Your task to perform on an android device: Open the Play Movies app and select the watchlist tab. Image 0: 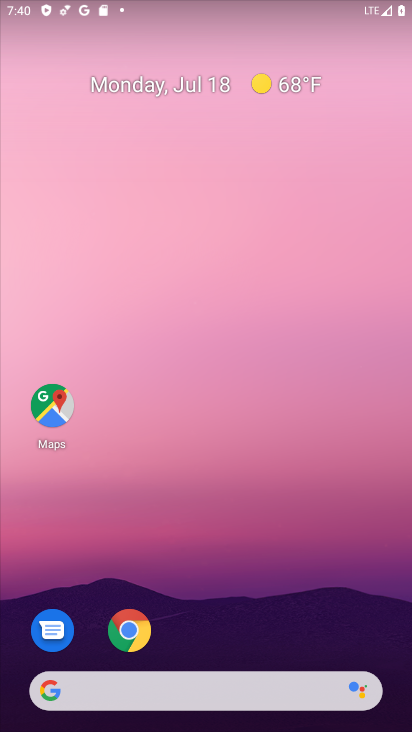
Step 0: drag from (220, 700) to (298, 96)
Your task to perform on an android device: Open the Play Movies app and select the watchlist tab. Image 1: 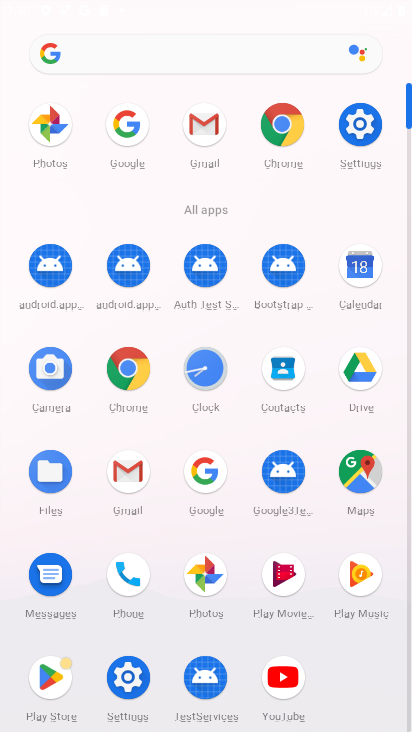
Step 1: drag from (192, 590) to (192, 397)
Your task to perform on an android device: Open the Play Movies app and select the watchlist tab. Image 2: 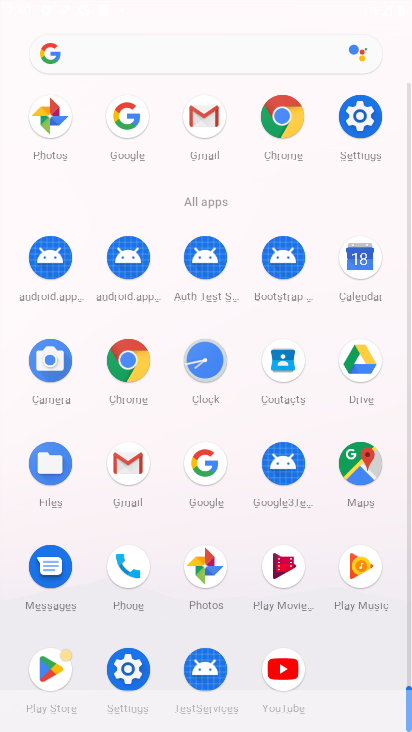
Step 2: click (298, 584)
Your task to perform on an android device: Open the Play Movies app and select the watchlist tab. Image 3: 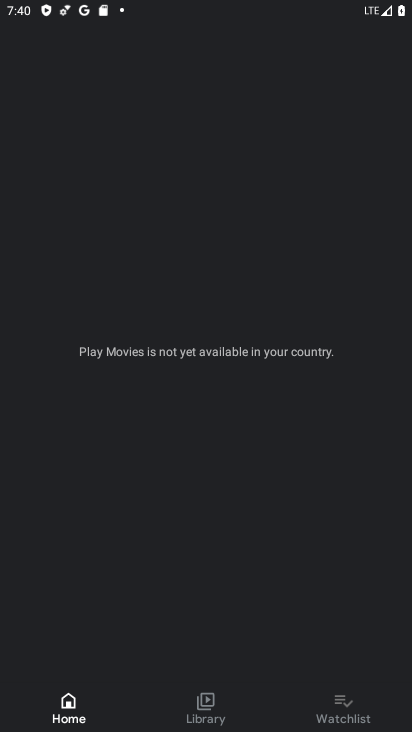
Step 3: click (348, 723)
Your task to perform on an android device: Open the Play Movies app and select the watchlist tab. Image 4: 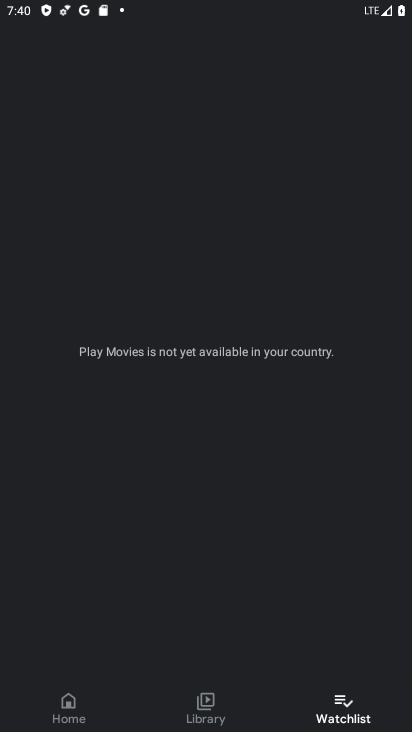
Step 4: task complete